Your task to perform on an android device: set the timer Image 0: 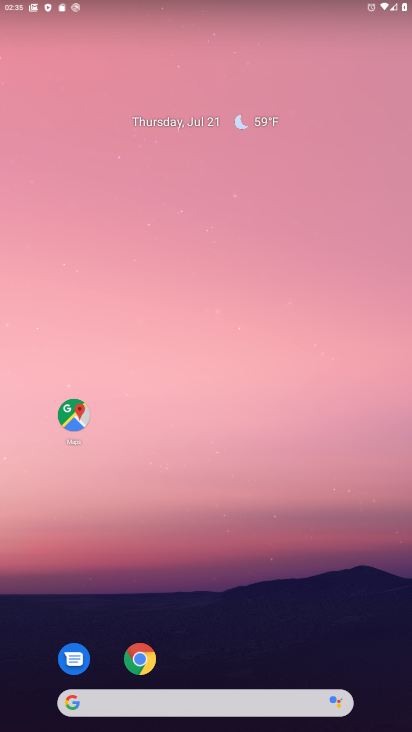
Step 0: drag from (342, 626) to (256, 124)
Your task to perform on an android device: set the timer Image 1: 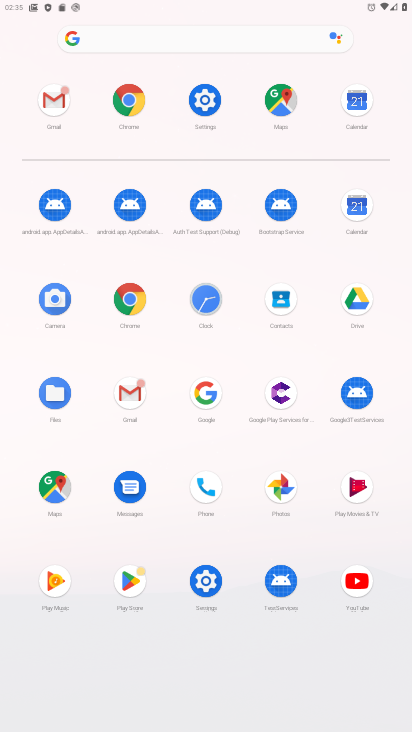
Step 1: click (205, 300)
Your task to perform on an android device: set the timer Image 2: 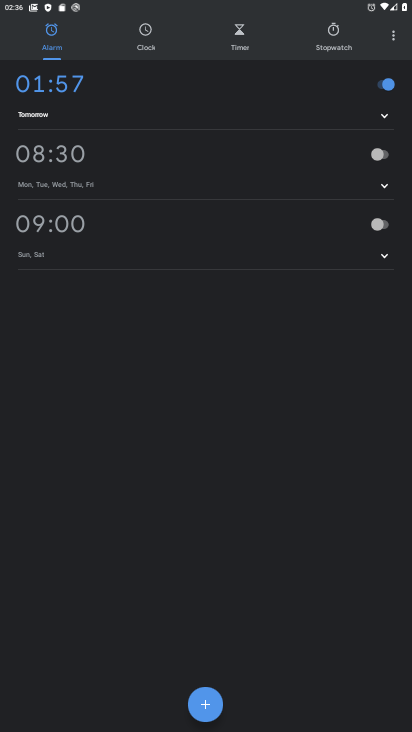
Step 2: click (209, 701)
Your task to perform on an android device: set the timer Image 3: 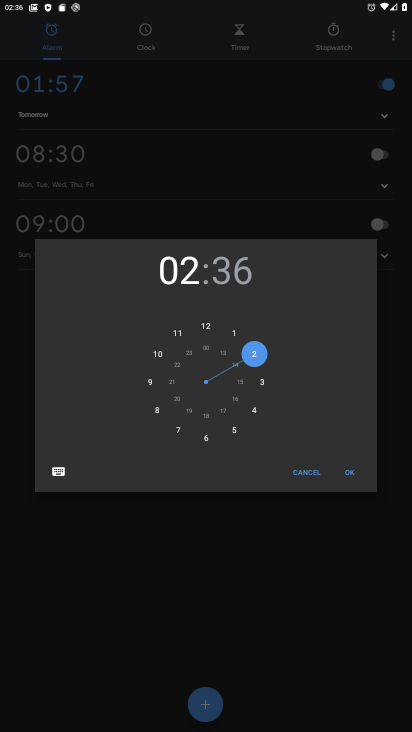
Step 3: click (315, 475)
Your task to perform on an android device: set the timer Image 4: 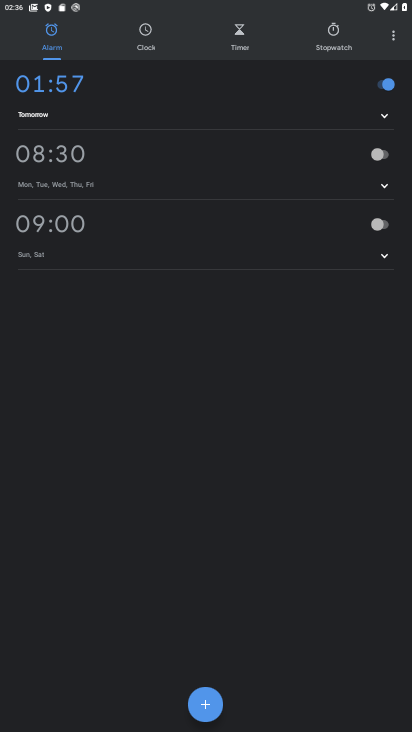
Step 4: click (248, 45)
Your task to perform on an android device: set the timer Image 5: 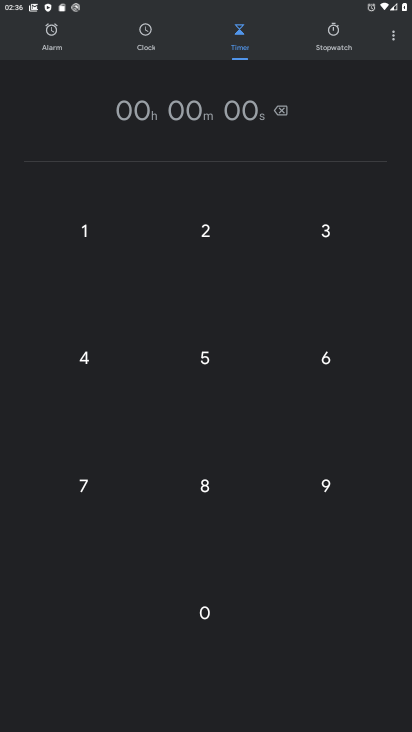
Step 5: click (207, 357)
Your task to perform on an android device: set the timer Image 6: 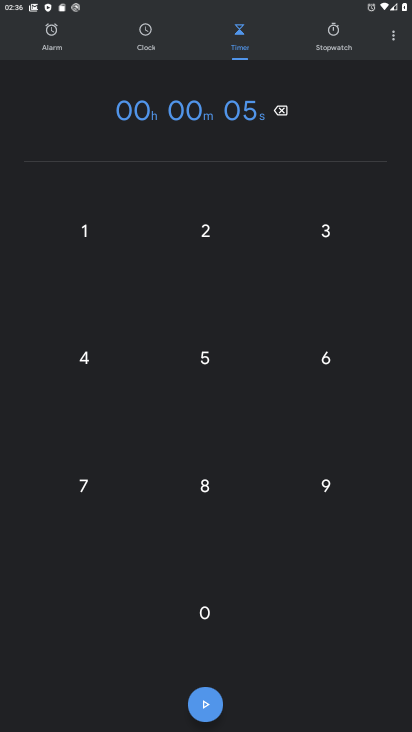
Step 6: task complete